Your task to perform on an android device: Open Yahoo.com Image 0: 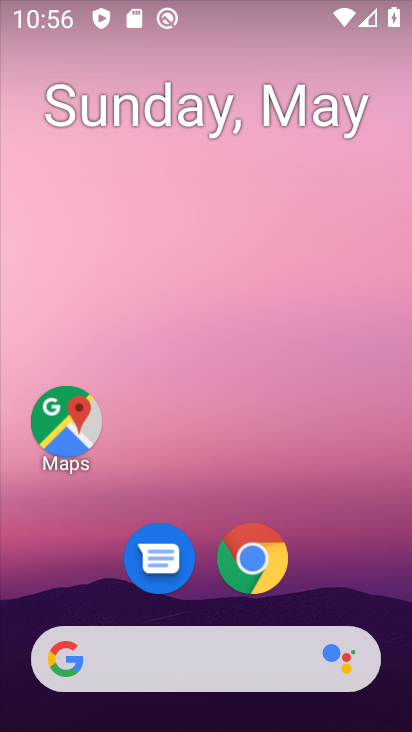
Step 0: drag from (355, 569) to (353, 189)
Your task to perform on an android device: Open Yahoo.com Image 1: 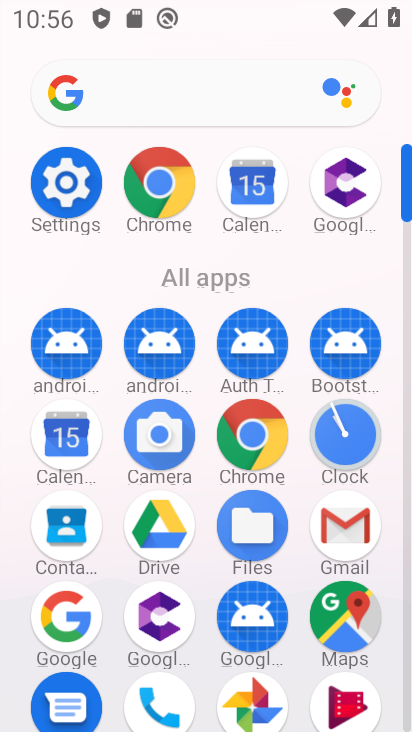
Step 1: click (262, 435)
Your task to perform on an android device: Open Yahoo.com Image 2: 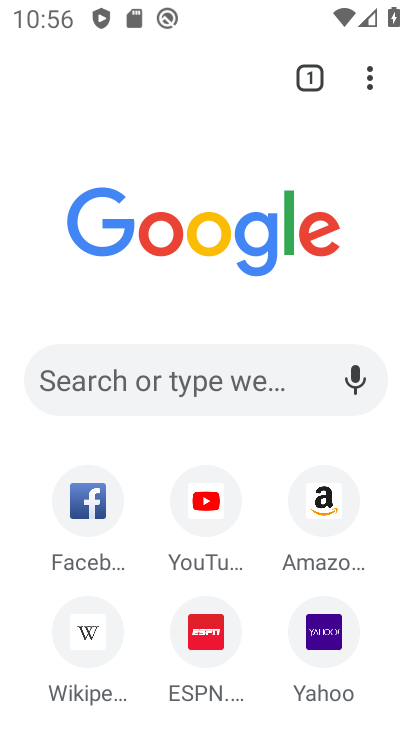
Step 2: click (341, 642)
Your task to perform on an android device: Open Yahoo.com Image 3: 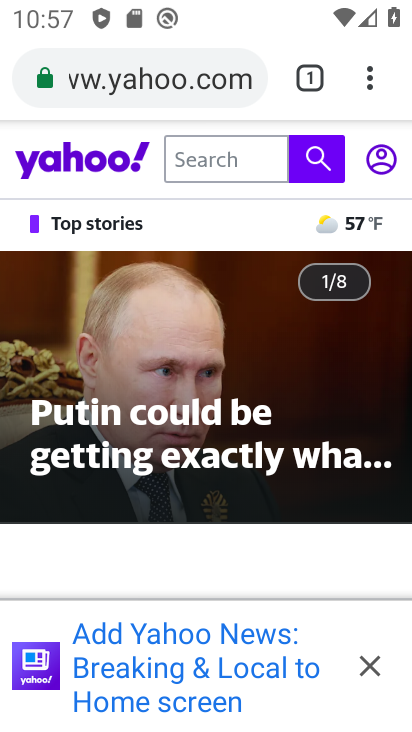
Step 3: task complete